Your task to perform on an android device: Open calendar and show me the third week of next month Image 0: 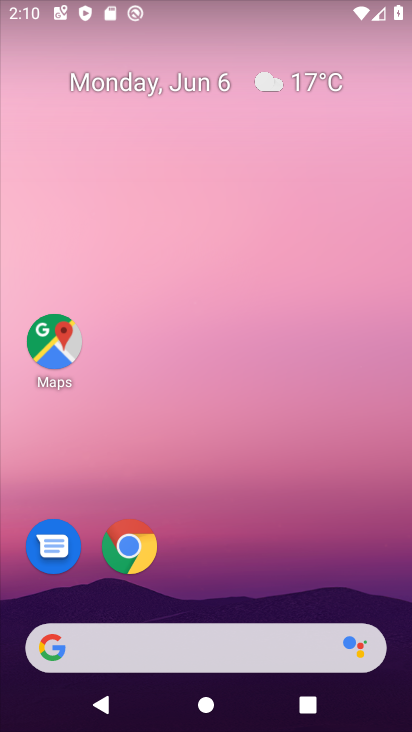
Step 0: drag from (260, 586) to (26, 0)
Your task to perform on an android device: Open calendar and show me the third week of next month Image 1: 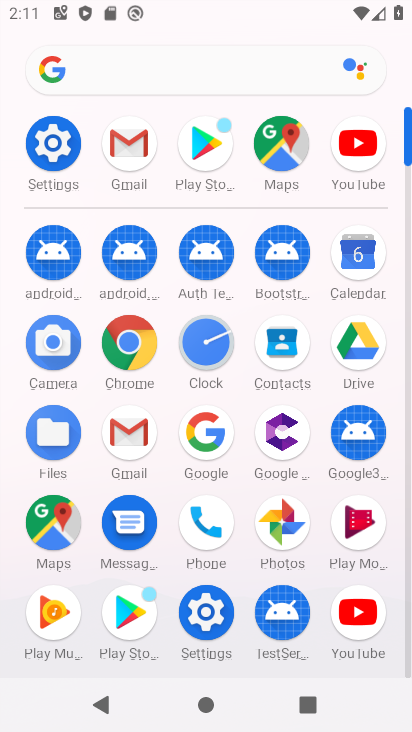
Step 1: task complete